Your task to perform on an android device: turn pop-ups off in chrome Image 0: 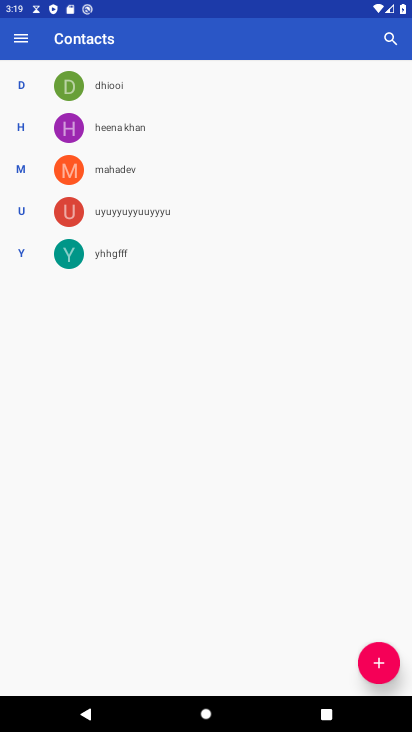
Step 0: press home button
Your task to perform on an android device: turn pop-ups off in chrome Image 1: 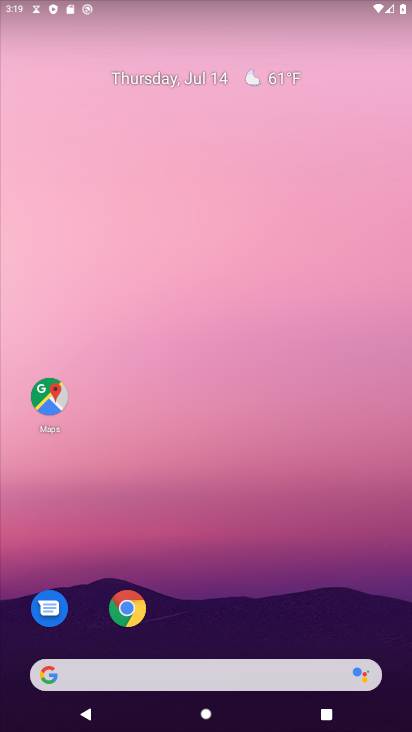
Step 1: click (146, 616)
Your task to perform on an android device: turn pop-ups off in chrome Image 2: 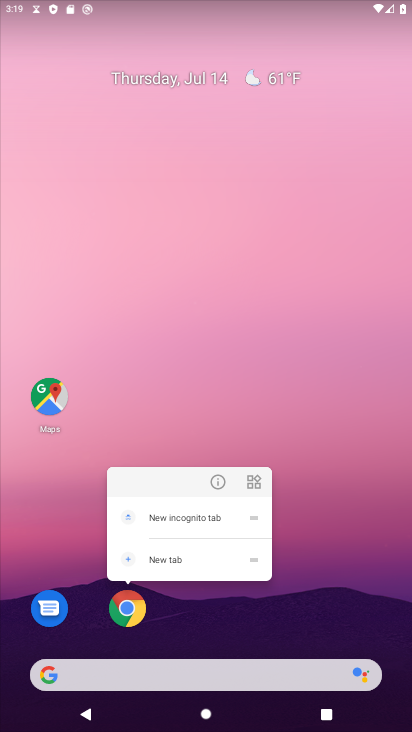
Step 2: click (117, 616)
Your task to perform on an android device: turn pop-ups off in chrome Image 3: 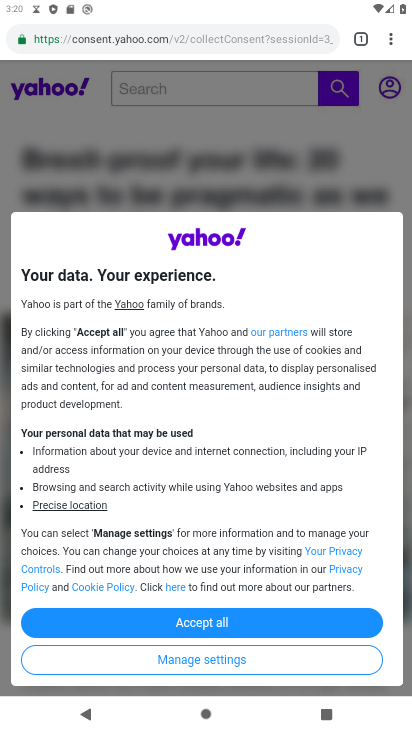
Step 3: drag from (393, 32) to (248, 472)
Your task to perform on an android device: turn pop-ups off in chrome Image 4: 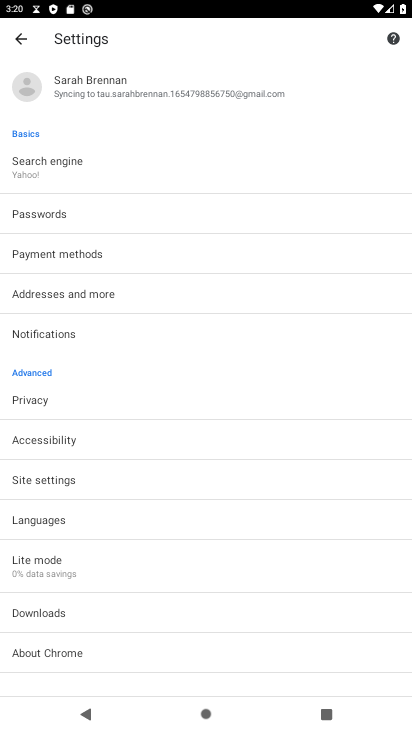
Step 4: click (72, 485)
Your task to perform on an android device: turn pop-ups off in chrome Image 5: 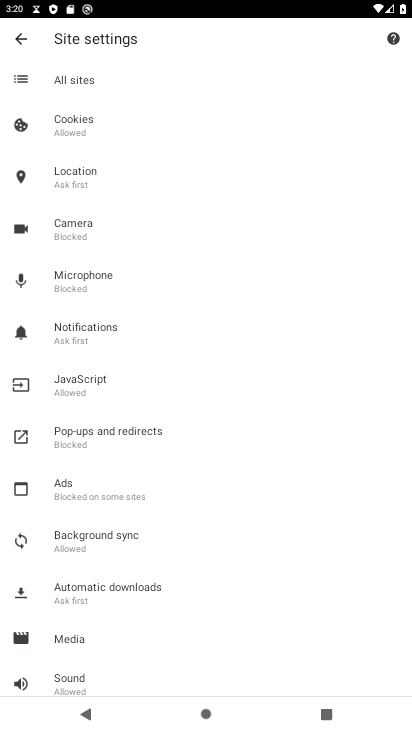
Step 5: click (98, 433)
Your task to perform on an android device: turn pop-ups off in chrome Image 6: 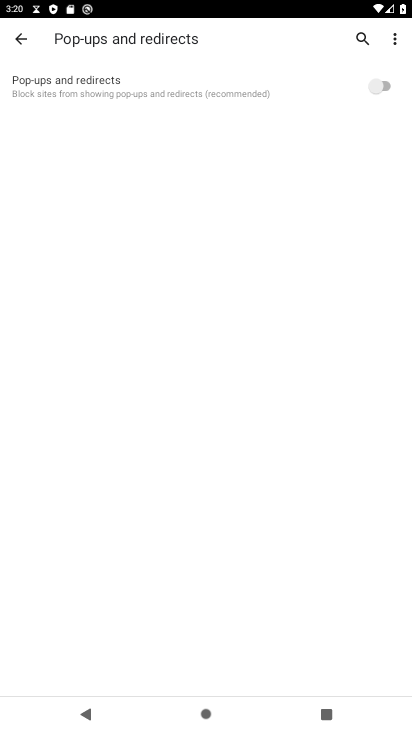
Step 6: task complete